Your task to perform on an android device: Open Chrome and go to the settings page Image 0: 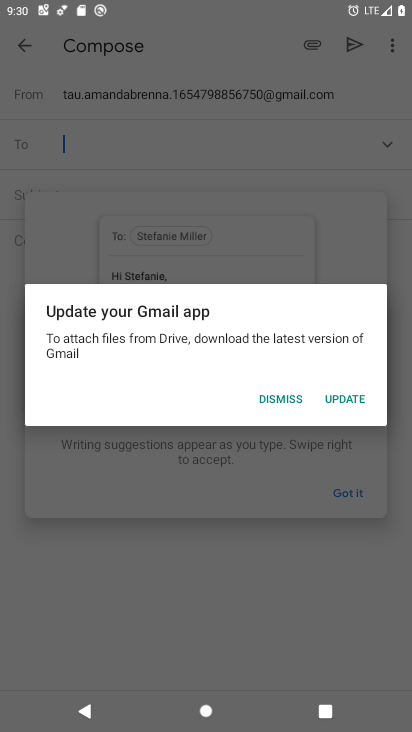
Step 0: press home button
Your task to perform on an android device: Open Chrome and go to the settings page Image 1: 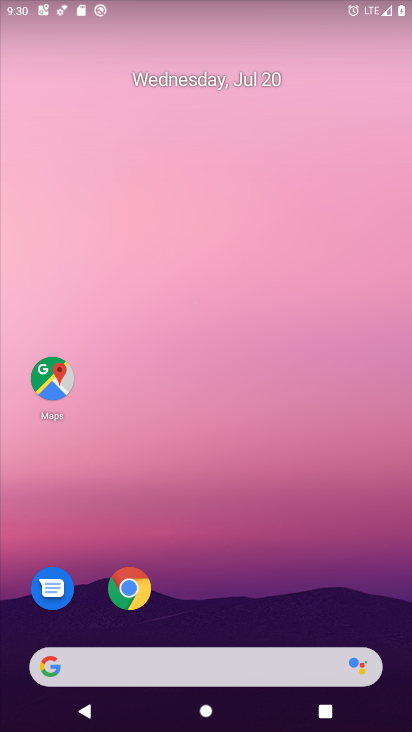
Step 1: click (126, 580)
Your task to perform on an android device: Open Chrome and go to the settings page Image 2: 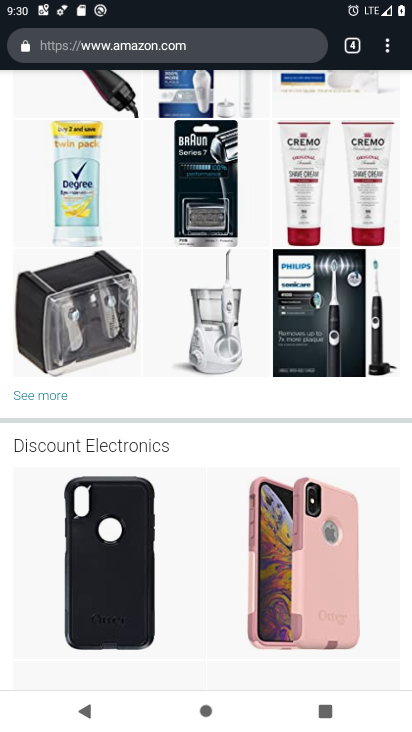
Step 2: click (386, 42)
Your task to perform on an android device: Open Chrome and go to the settings page Image 3: 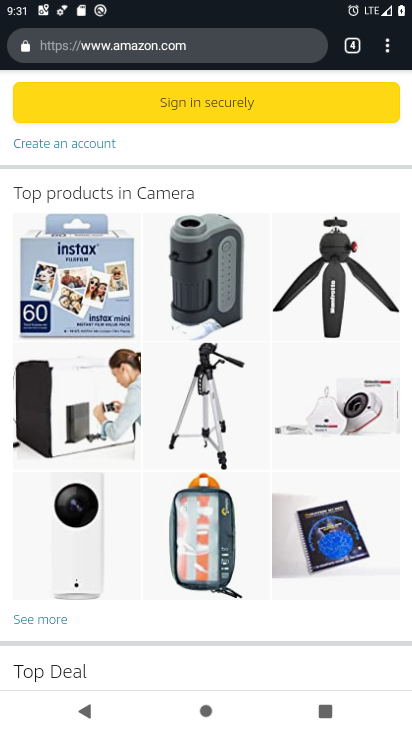
Step 3: click (385, 50)
Your task to perform on an android device: Open Chrome and go to the settings page Image 4: 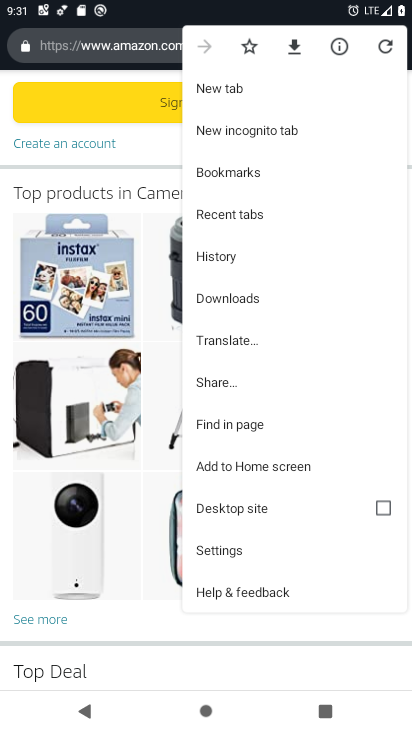
Step 4: click (237, 547)
Your task to perform on an android device: Open Chrome and go to the settings page Image 5: 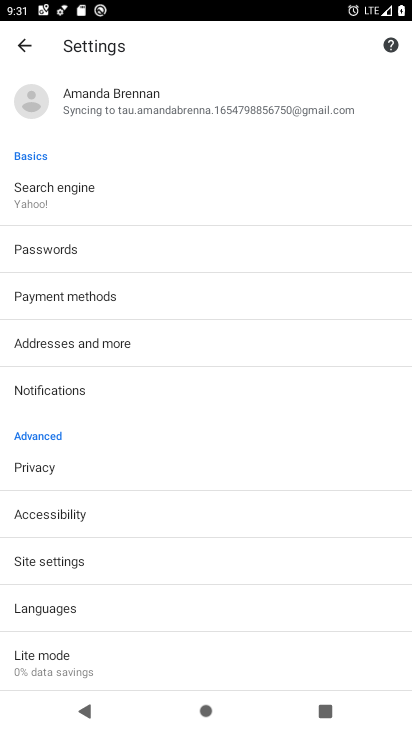
Step 5: task complete